Your task to perform on an android device: set default search engine in the chrome app Image 0: 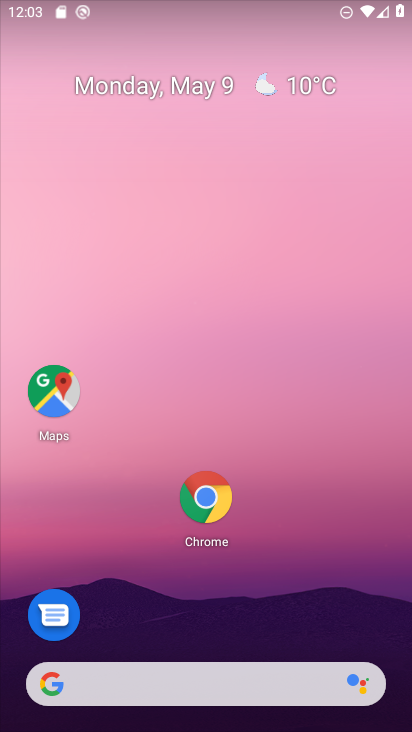
Step 0: drag from (339, 581) to (318, 159)
Your task to perform on an android device: set default search engine in the chrome app Image 1: 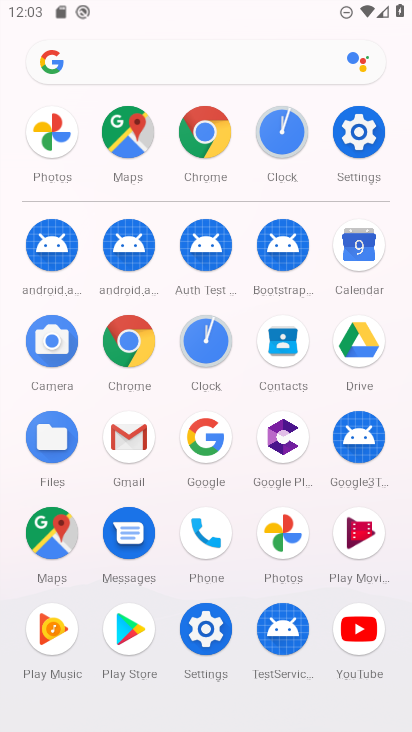
Step 1: click (132, 348)
Your task to perform on an android device: set default search engine in the chrome app Image 2: 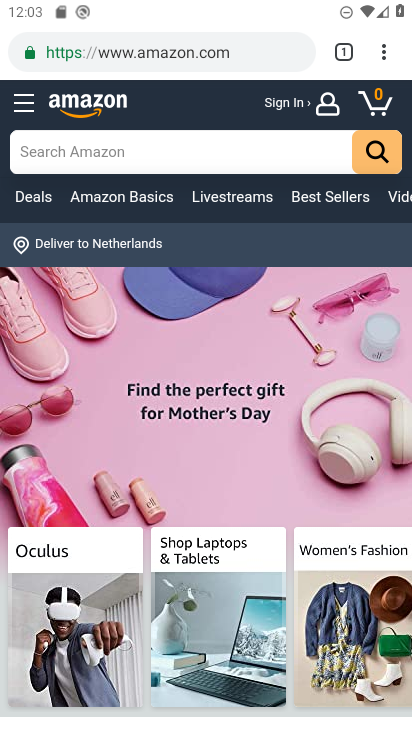
Step 2: drag from (378, 47) to (200, 626)
Your task to perform on an android device: set default search engine in the chrome app Image 3: 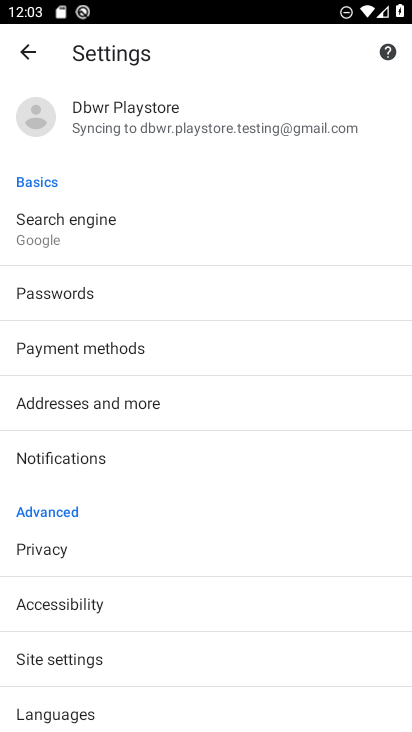
Step 3: click (136, 245)
Your task to perform on an android device: set default search engine in the chrome app Image 4: 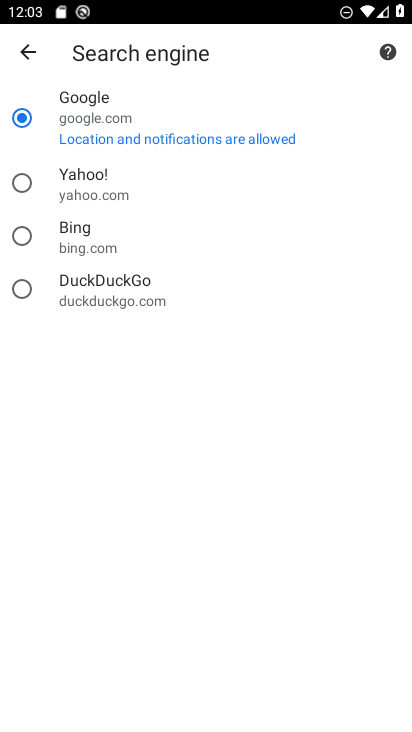
Step 4: task complete